Your task to perform on an android device: Search for Mexican restaurants on Maps Image 0: 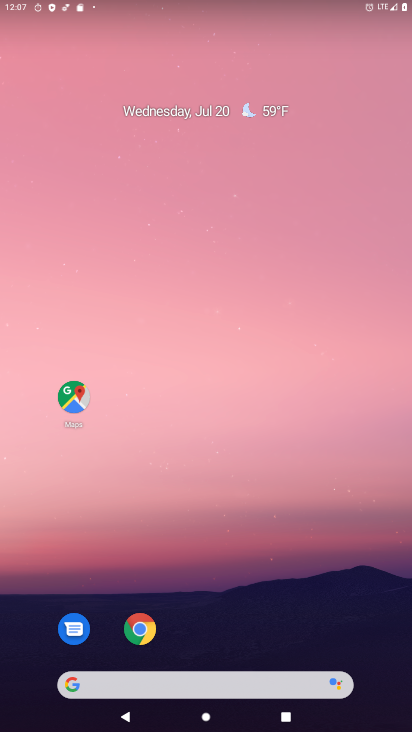
Step 0: drag from (240, 631) to (248, 54)
Your task to perform on an android device: Search for Mexican restaurants on Maps Image 1: 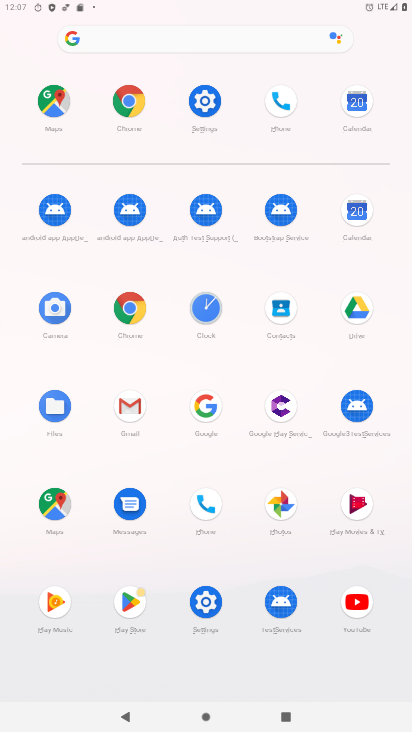
Step 1: click (43, 97)
Your task to perform on an android device: Search for Mexican restaurants on Maps Image 2: 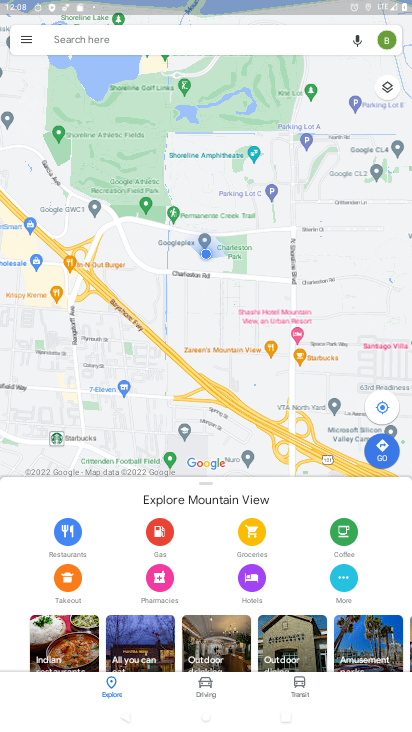
Step 2: click (177, 38)
Your task to perform on an android device: Search for Mexican restaurants on Maps Image 3: 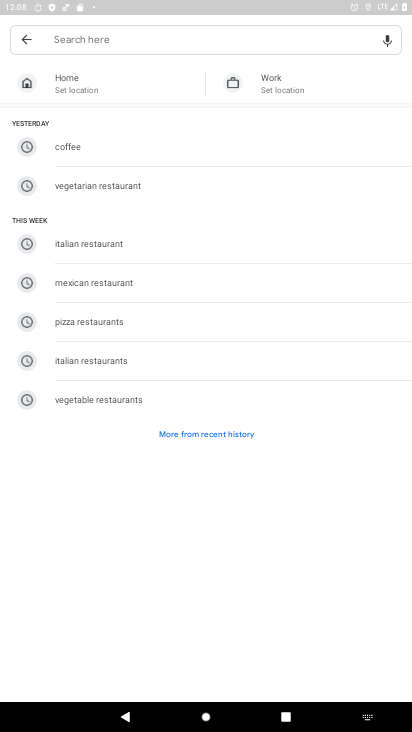
Step 3: click (155, 290)
Your task to perform on an android device: Search for Mexican restaurants on Maps Image 4: 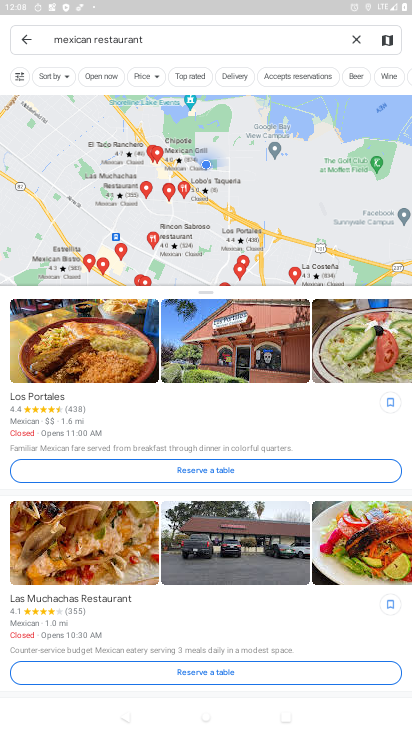
Step 4: task complete